Your task to perform on an android device: Open calendar and show me the fourth week of next month Image 0: 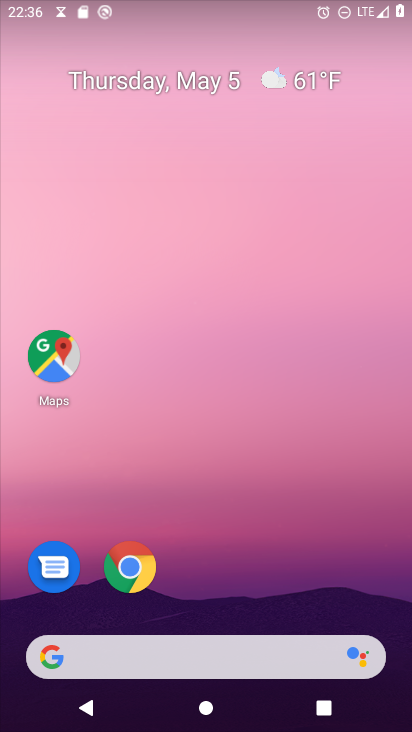
Step 0: drag from (229, 725) to (221, 201)
Your task to perform on an android device: Open calendar and show me the fourth week of next month Image 1: 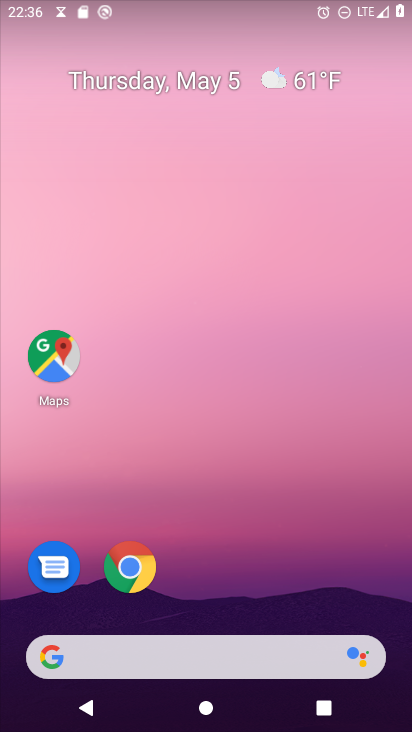
Step 1: drag from (218, 723) to (220, 197)
Your task to perform on an android device: Open calendar and show me the fourth week of next month Image 2: 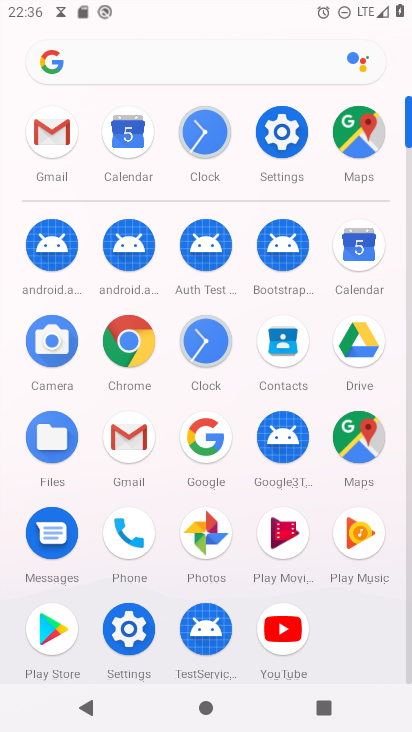
Step 2: click (353, 255)
Your task to perform on an android device: Open calendar and show me the fourth week of next month Image 3: 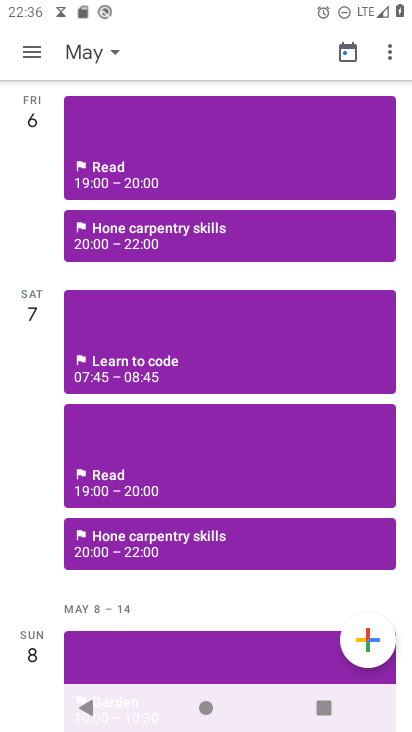
Step 3: click (86, 54)
Your task to perform on an android device: Open calendar and show me the fourth week of next month Image 4: 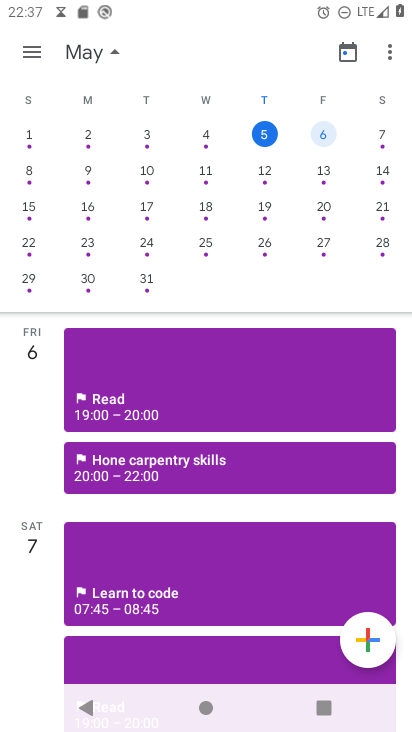
Step 4: drag from (331, 190) to (22, 185)
Your task to perform on an android device: Open calendar and show me the fourth week of next month Image 5: 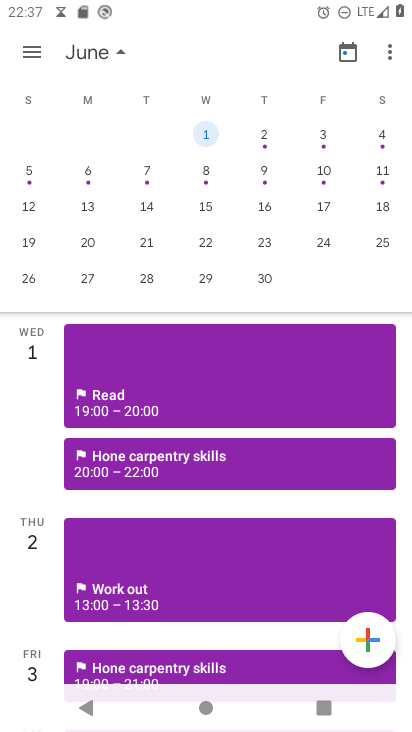
Step 5: click (63, 292)
Your task to perform on an android device: Open calendar and show me the fourth week of next month Image 6: 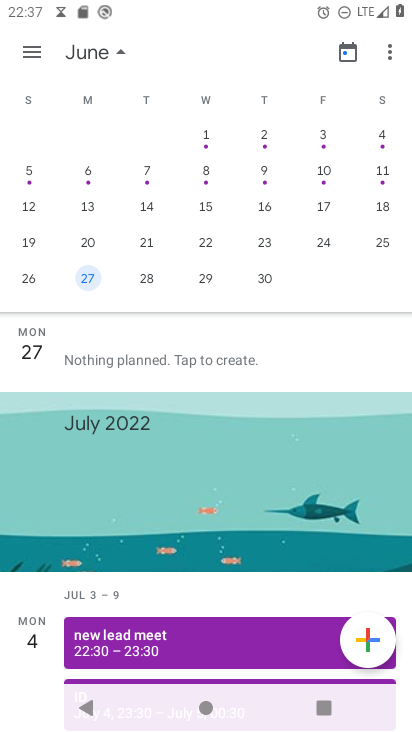
Step 6: click (82, 274)
Your task to perform on an android device: Open calendar and show me the fourth week of next month Image 7: 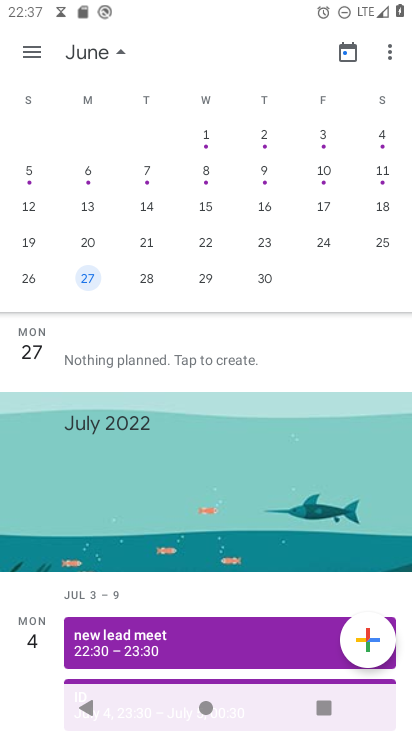
Step 7: task complete